Your task to perform on an android device: show emergency info Image 0: 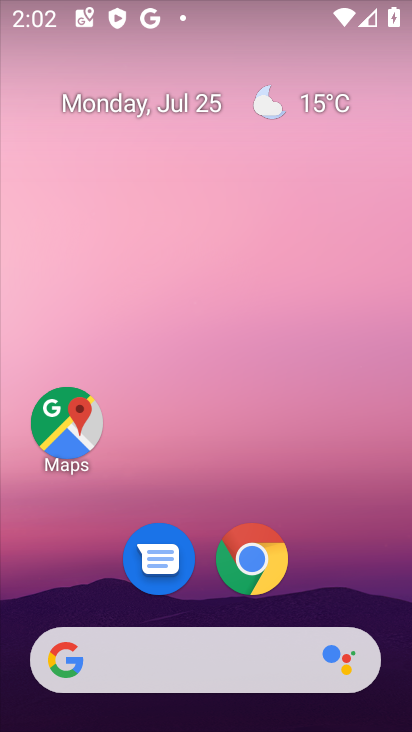
Step 0: drag from (116, 563) to (263, 7)
Your task to perform on an android device: show emergency info Image 1: 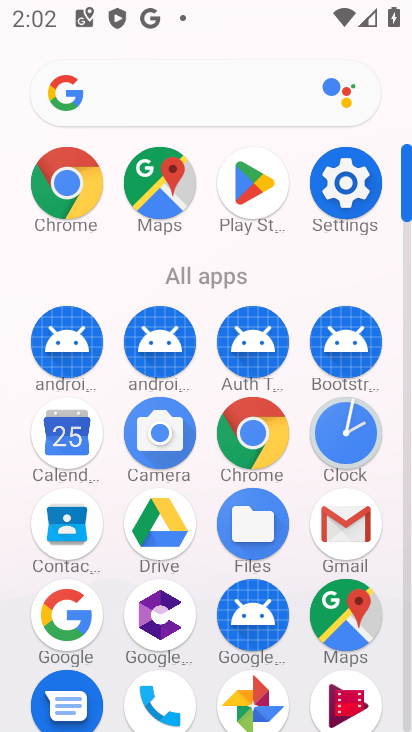
Step 1: click (347, 188)
Your task to perform on an android device: show emergency info Image 2: 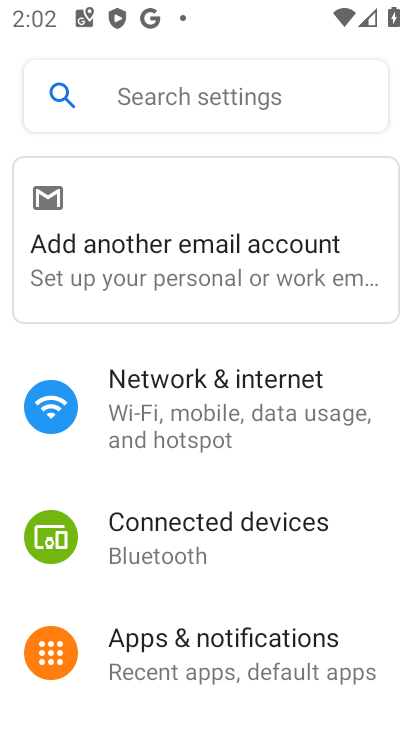
Step 2: drag from (129, 616) to (264, 85)
Your task to perform on an android device: show emergency info Image 3: 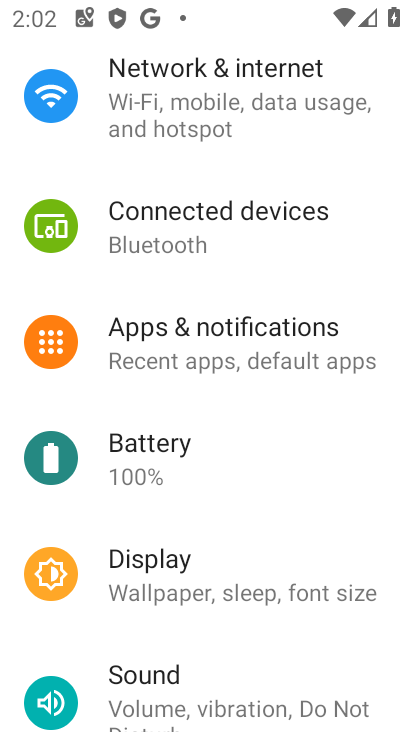
Step 3: drag from (216, 600) to (340, 23)
Your task to perform on an android device: show emergency info Image 4: 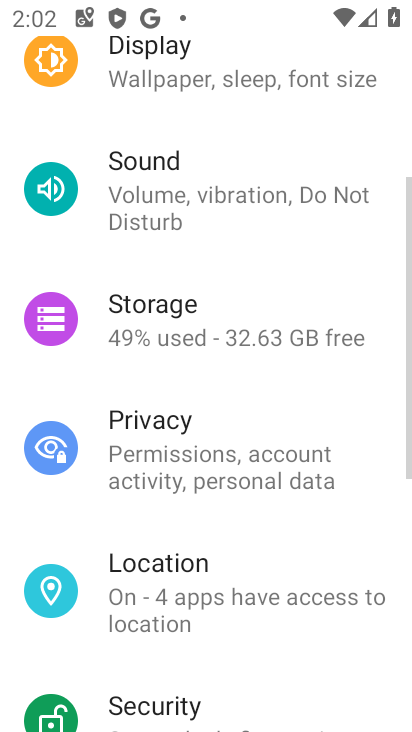
Step 4: drag from (210, 673) to (347, 24)
Your task to perform on an android device: show emergency info Image 5: 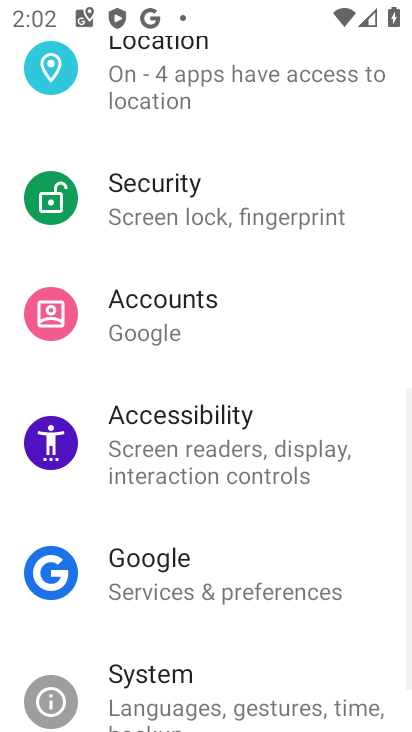
Step 5: drag from (243, 397) to (339, 20)
Your task to perform on an android device: show emergency info Image 6: 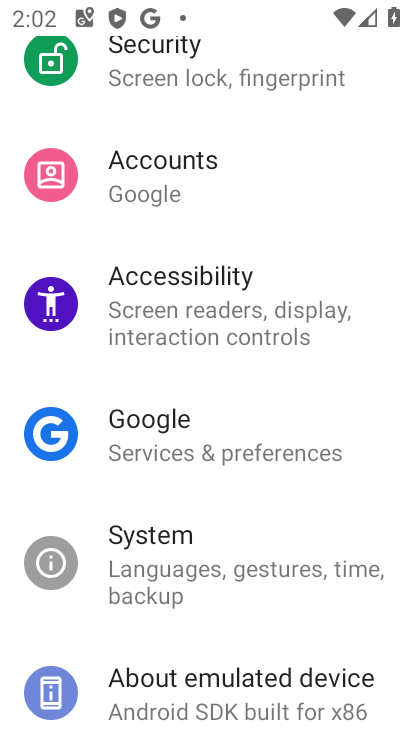
Step 6: click (191, 678)
Your task to perform on an android device: show emergency info Image 7: 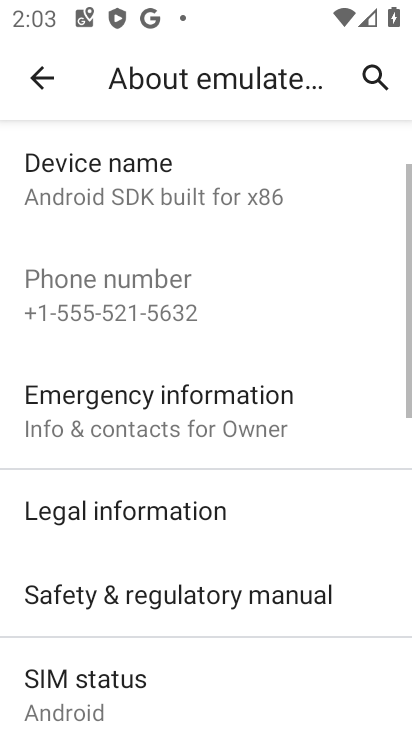
Step 7: click (299, 387)
Your task to perform on an android device: show emergency info Image 8: 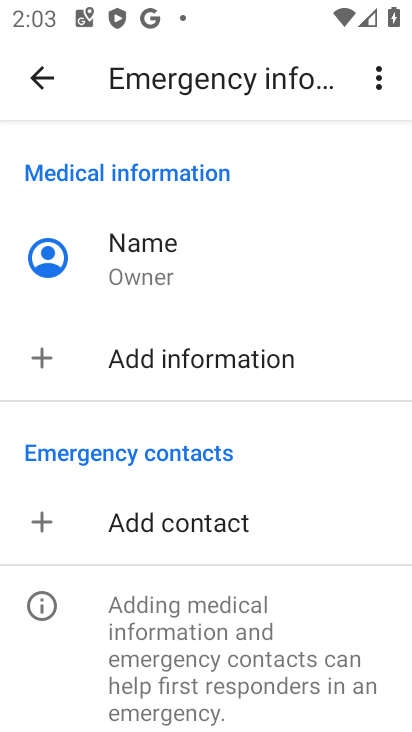
Step 8: task complete